Your task to perform on an android device: Open settings on Google Maps Image 0: 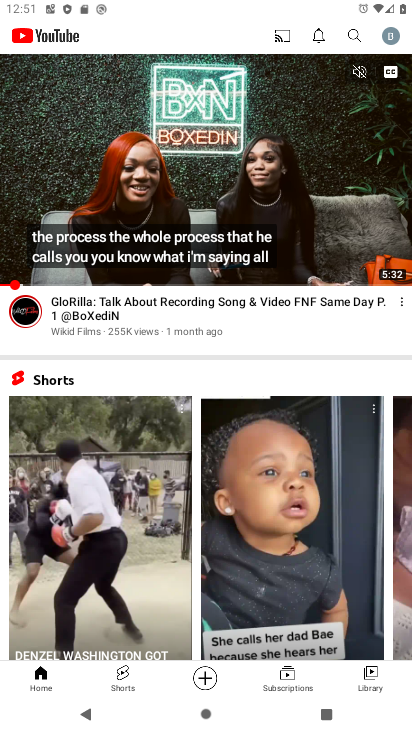
Step 0: press back button
Your task to perform on an android device: Open settings on Google Maps Image 1: 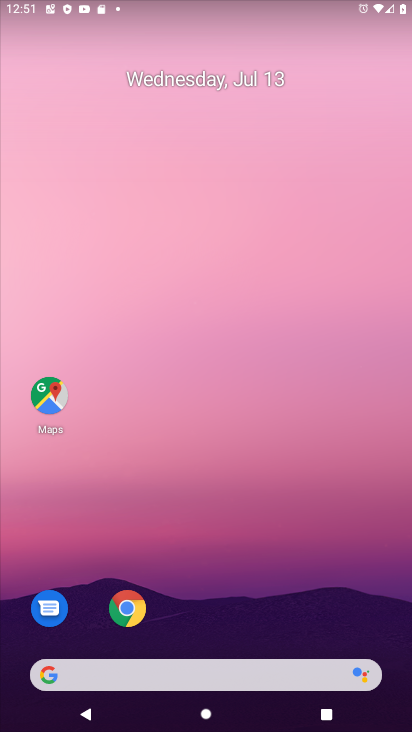
Step 1: click (55, 386)
Your task to perform on an android device: Open settings on Google Maps Image 2: 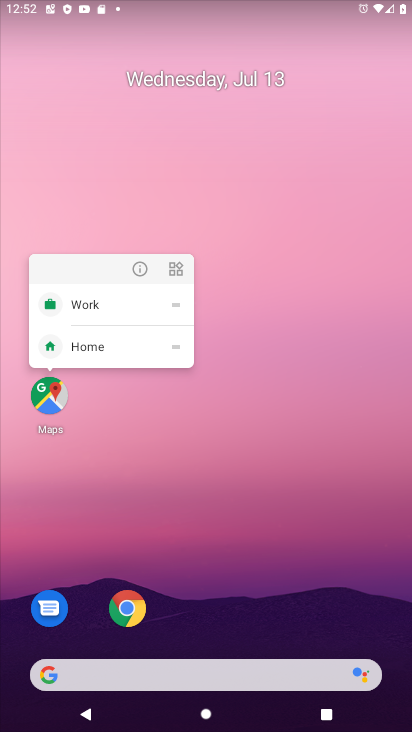
Step 2: click (45, 395)
Your task to perform on an android device: Open settings on Google Maps Image 3: 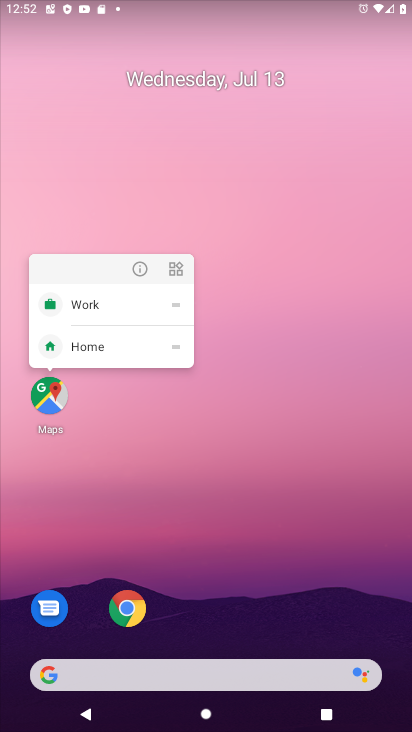
Step 3: click (38, 397)
Your task to perform on an android device: Open settings on Google Maps Image 4: 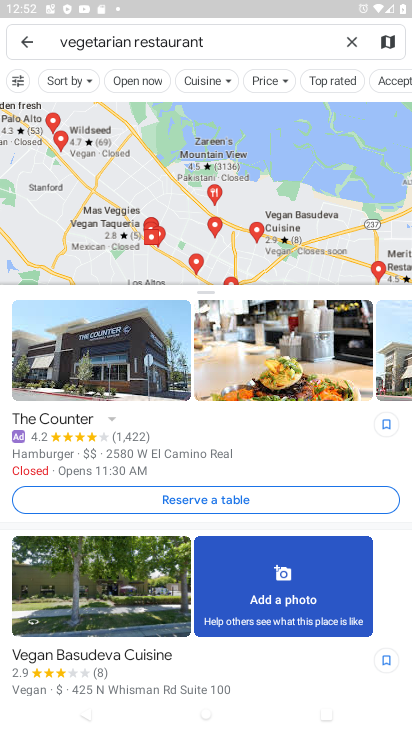
Step 4: task complete